Your task to perform on an android device: turn pop-ups on in chrome Image 0: 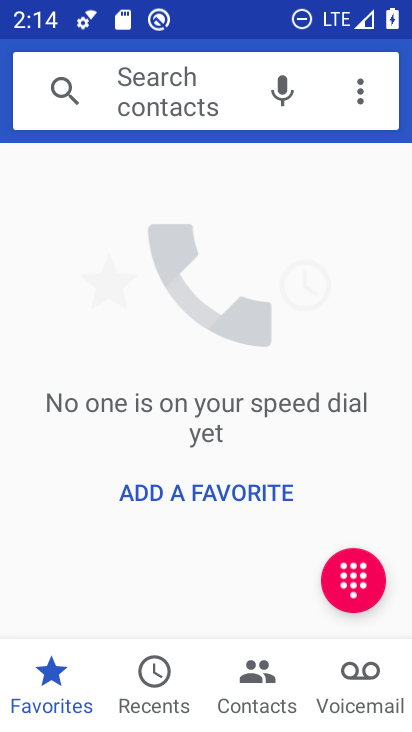
Step 0: press home button
Your task to perform on an android device: turn pop-ups on in chrome Image 1: 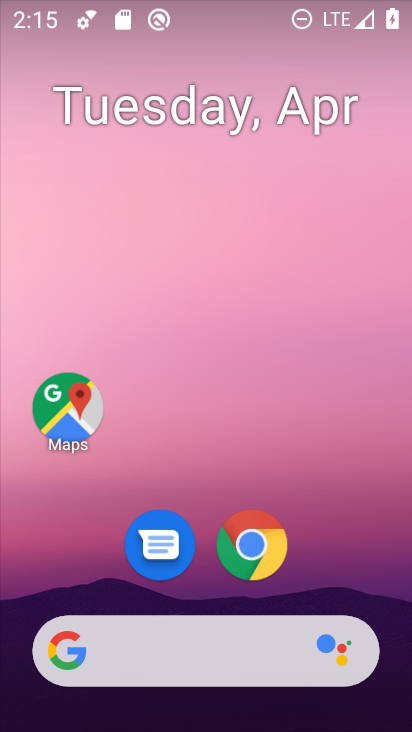
Step 1: click (282, 552)
Your task to perform on an android device: turn pop-ups on in chrome Image 2: 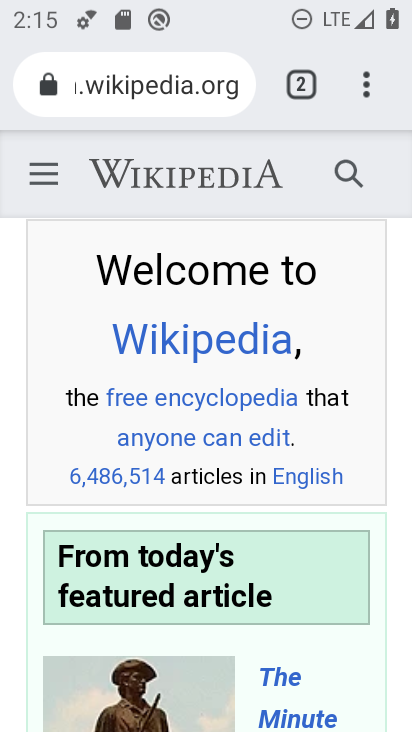
Step 2: click (376, 95)
Your task to perform on an android device: turn pop-ups on in chrome Image 3: 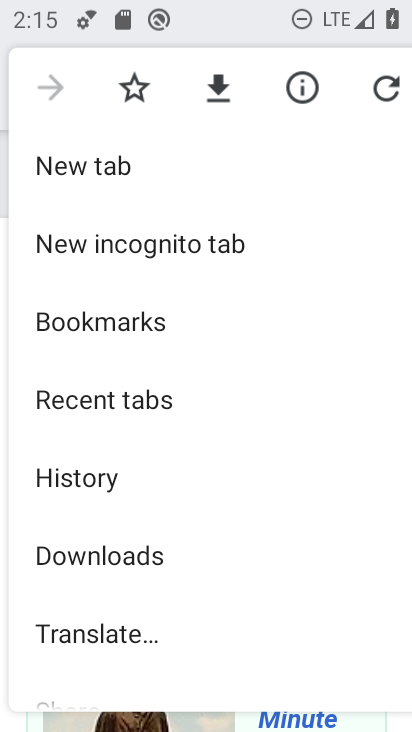
Step 3: drag from (204, 653) to (201, 209)
Your task to perform on an android device: turn pop-ups on in chrome Image 4: 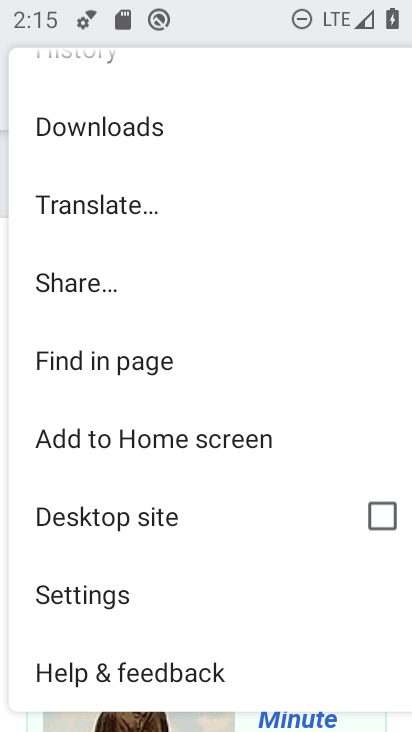
Step 4: click (242, 584)
Your task to perform on an android device: turn pop-ups on in chrome Image 5: 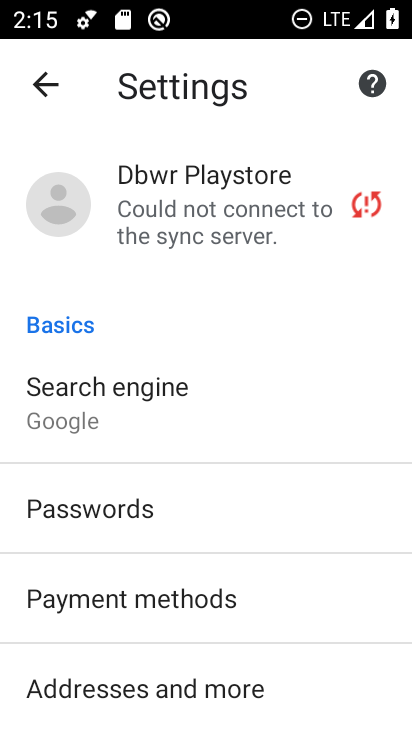
Step 5: drag from (323, 631) to (271, 278)
Your task to perform on an android device: turn pop-ups on in chrome Image 6: 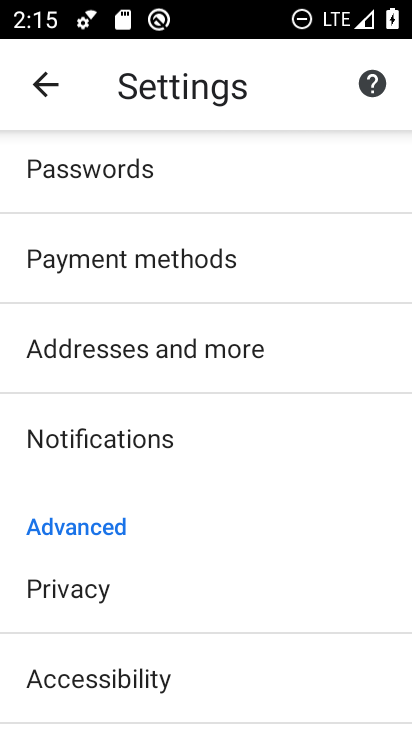
Step 6: drag from (315, 636) to (286, 240)
Your task to perform on an android device: turn pop-ups on in chrome Image 7: 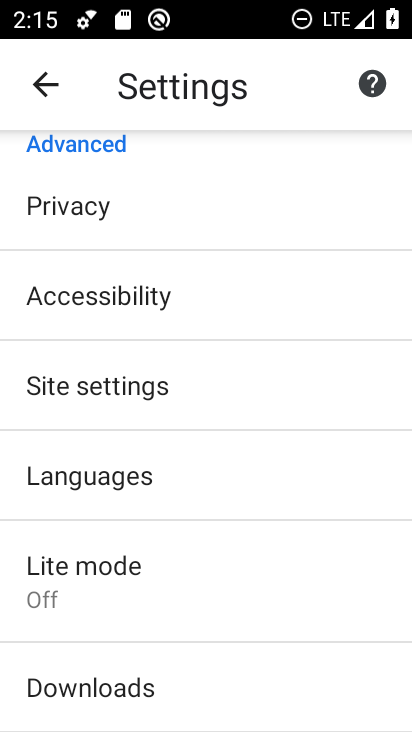
Step 7: click (297, 363)
Your task to perform on an android device: turn pop-ups on in chrome Image 8: 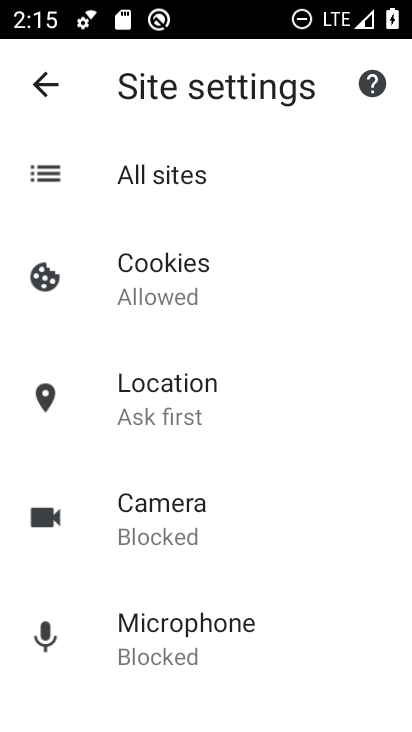
Step 8: drag from (307, 609) to (274, 205)
Your task to perform on an android device: turn pop-ups on in chrome Image 9: 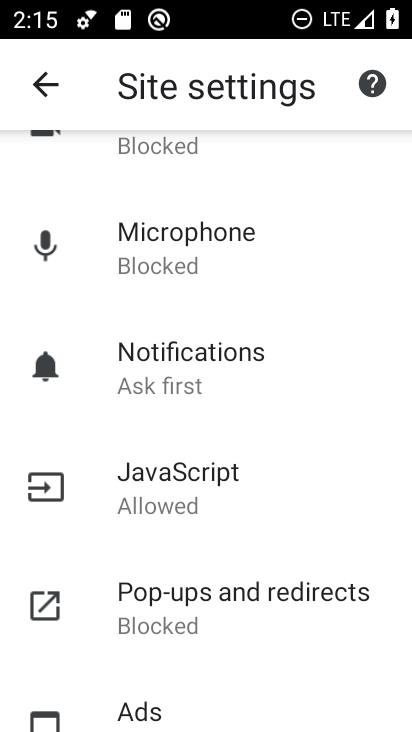
Step 9: click (311, 598)
Your task to perform on an android device: turn pop-ups on in chrome Image 10: 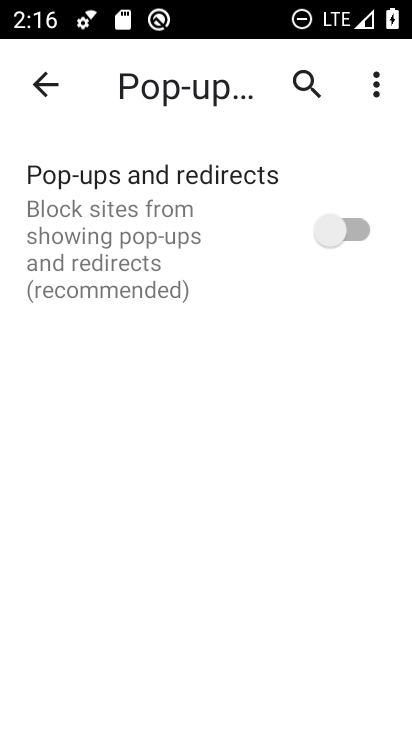
Step 10: click (357, 242)
Your task to perform on an android device: turn pop-ups on in chrome Image 11: 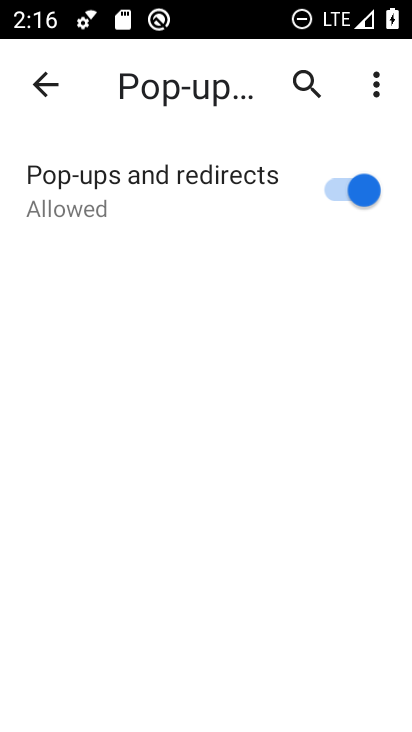
Step 11: task complete